Your task to perform on an android device: Go to accessibility settings Image 0: 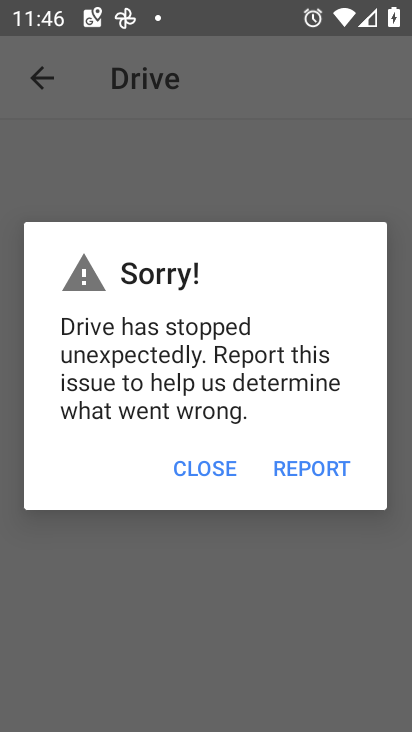
Step 0: press home button
Your task to perform on an android device: Go to accessibility settings Image 1: 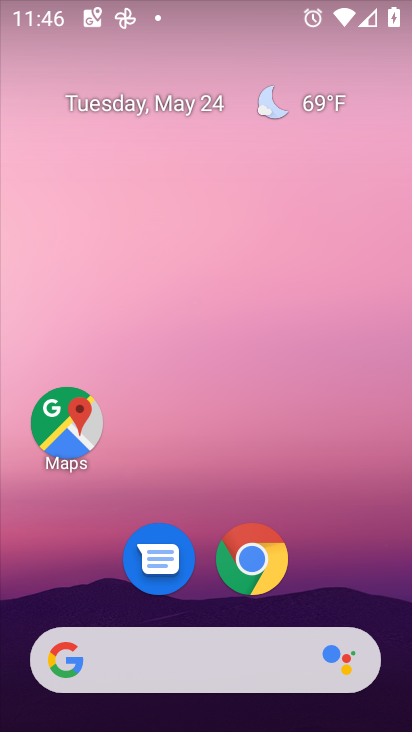
Step 1: drag from (399, 659) to (327, 134)
Your task to perform on an android device: Go to accessibility settings Image 2: 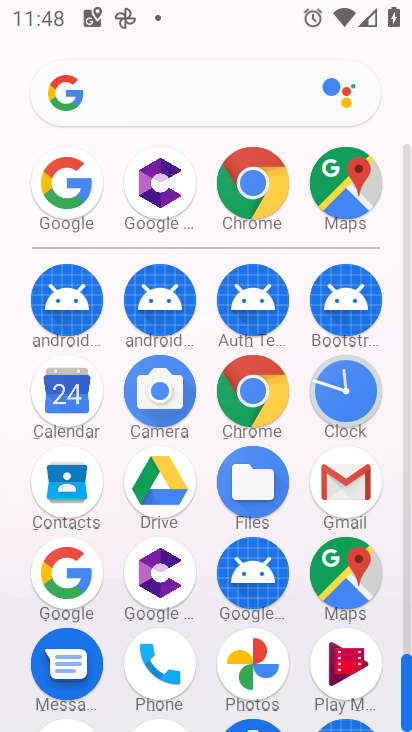
Step 2: drag from (215, 682) to (234, 99)
Your task to perform on an android device: Go to accessibility settings Image 3: 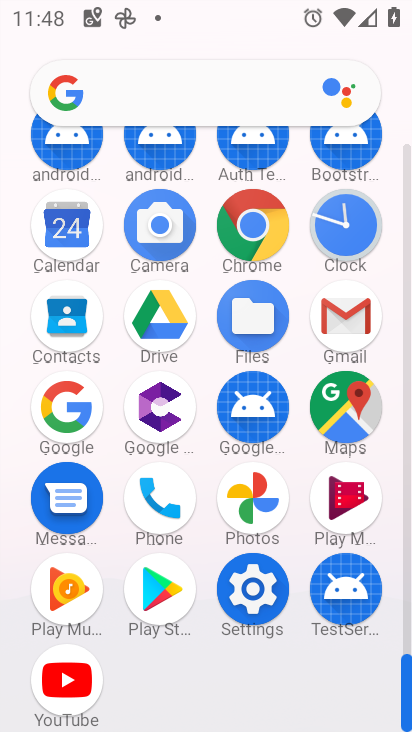
Step 3: click (254, 614)
Your task to perform on an android device: Go to accessibility settings Image 4: 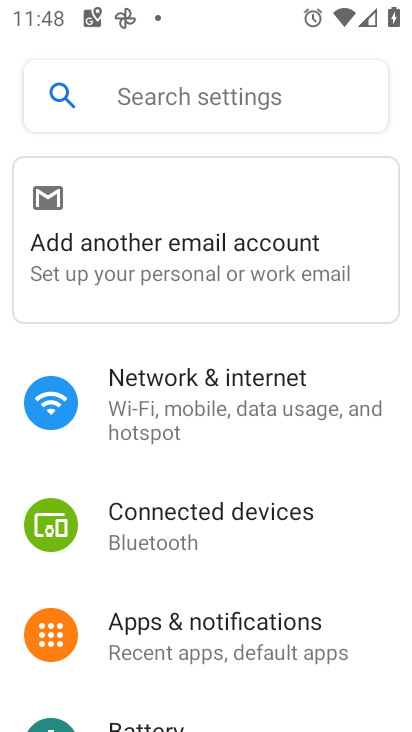
Step 4: drag from (251, 610) to (221, 113)
Your task to perform on an android device: Go to accessibility settings Image 5: 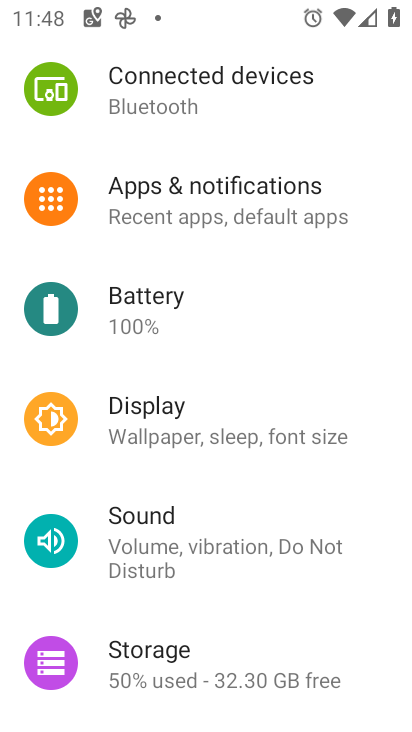
Step 5: drag from (171, 621) to (210, 91)
Your task to perform on an android device: Go to accessibility settings Image 6: 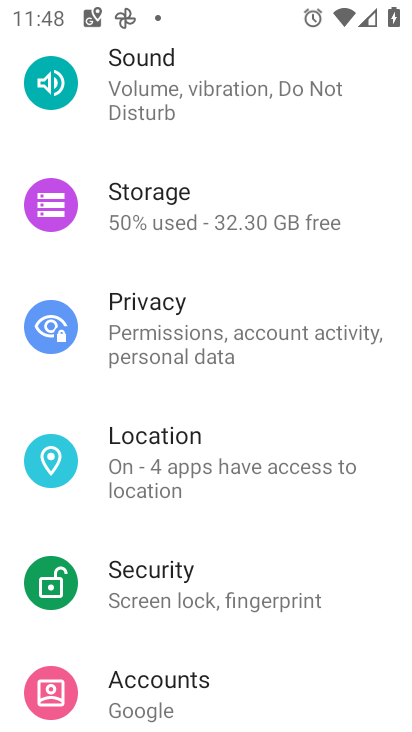
Step 6: drag from (190, 673) to (222, 228)
Your task to perform on an android device: Go to accessibility settings Image 7: 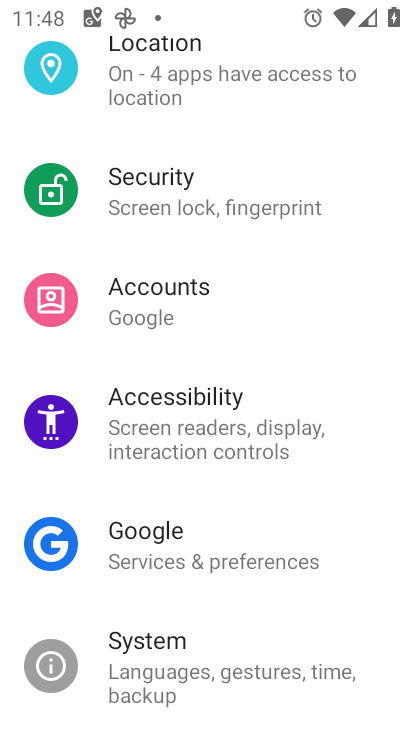
Step 7: click (203, 453)
Your task to perform on an android device: Go to accessibility settings Image 8: 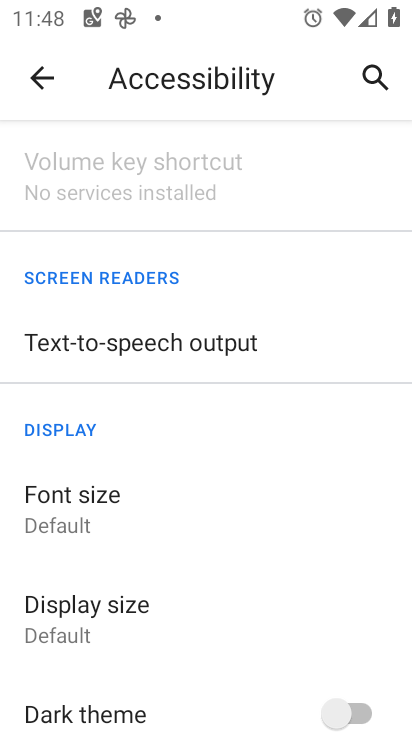
Step 8: task complete